Your task to perform on an android device: Open Maps and search for coffee Image 0: 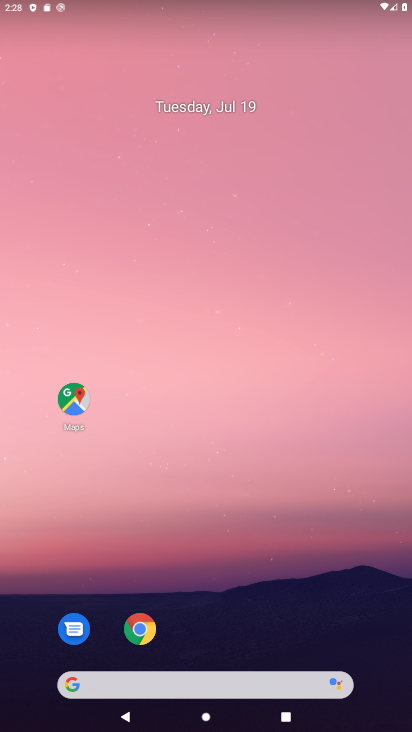
Step 0: click (71, 414)
Your task to perform on an android device: Open Maps and search for coffee Image 1: 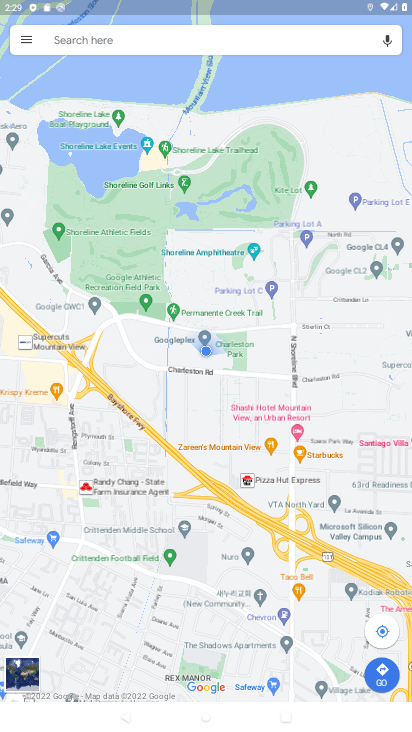
Step 1: click (155, 39)
Your task to perform on an android device: Open Maps and search for coffee Image 2: 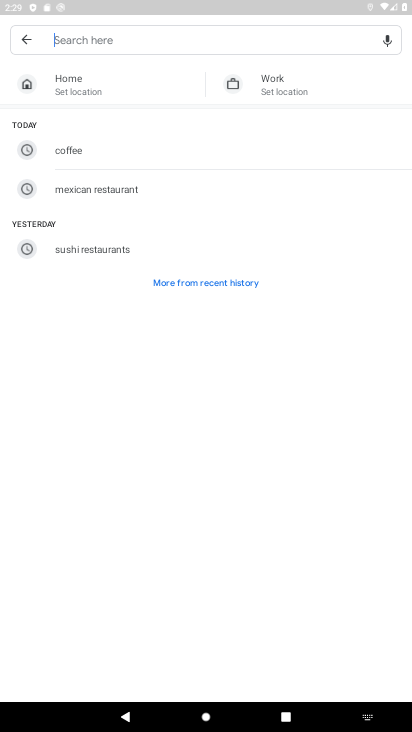
Step 2: type "coffe"
Your task to perform on an android device: Open Maps and search for coffee Image 3: 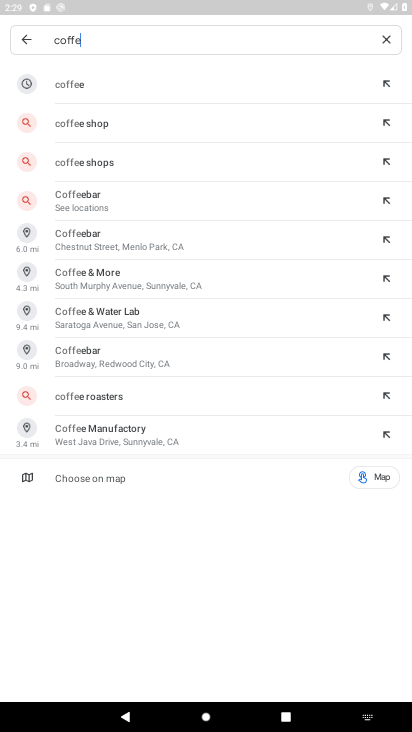
Step 3: click (117, 117)
Your task to perform on an android device: Open Maps and search for coffee Image 4: 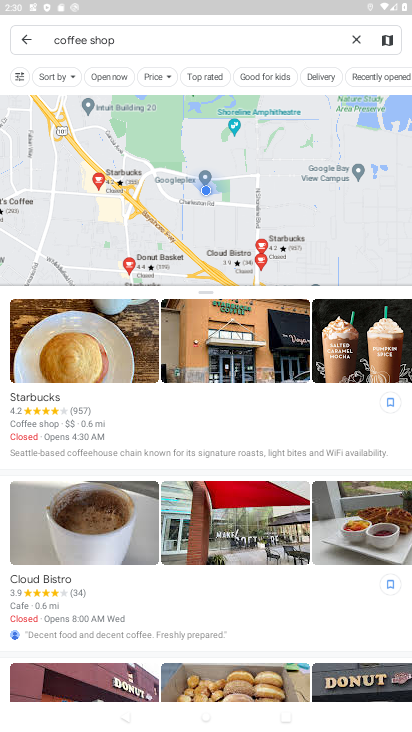
Step 4: task complete